Your task to perform on an android device: Go to Maps Image 0: 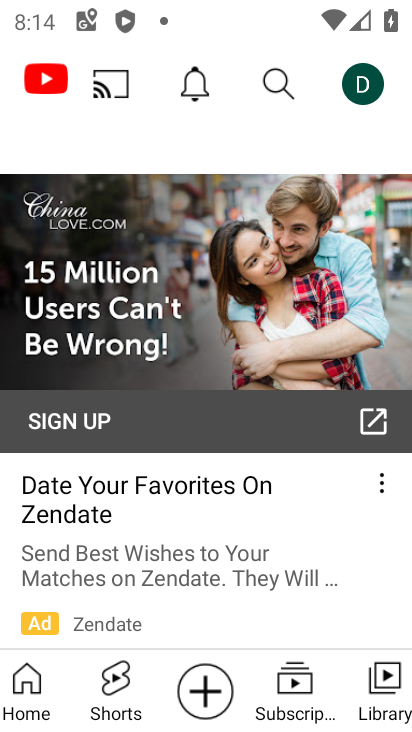
Step 0: press back button
Your task to perform on an android device: Go to Maps Image 1: 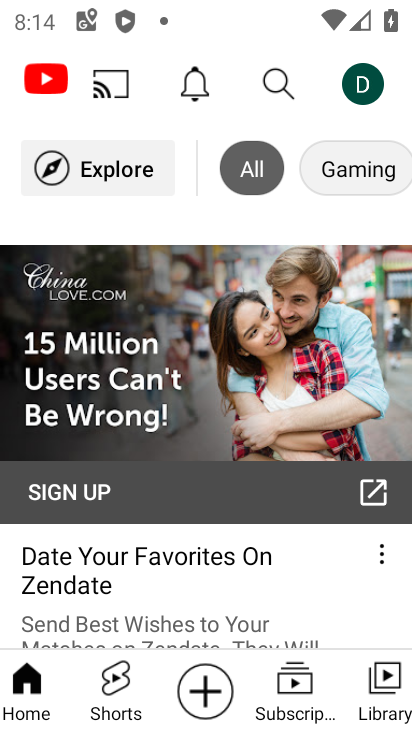
Step 1: press back button
Your task to perform on an android device: Go to Maps Image 2: 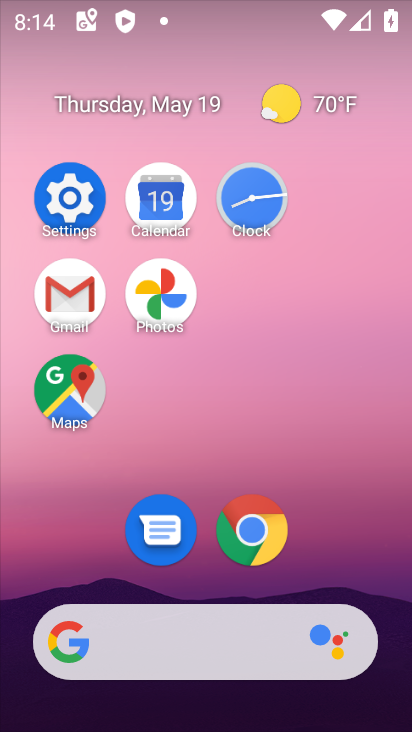
Step 2: click (70, 402)
Your task to perform on an android device: Go to Maps Image 3: 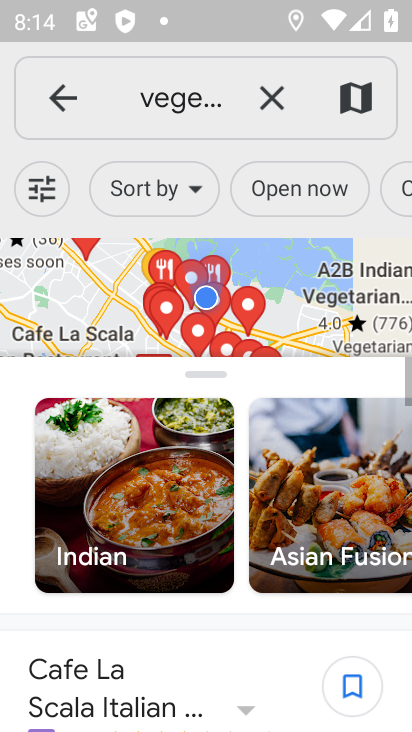
Step 3: task complete